Your task to perform on an android device: turn on the 12-hour format for clock Image 0: 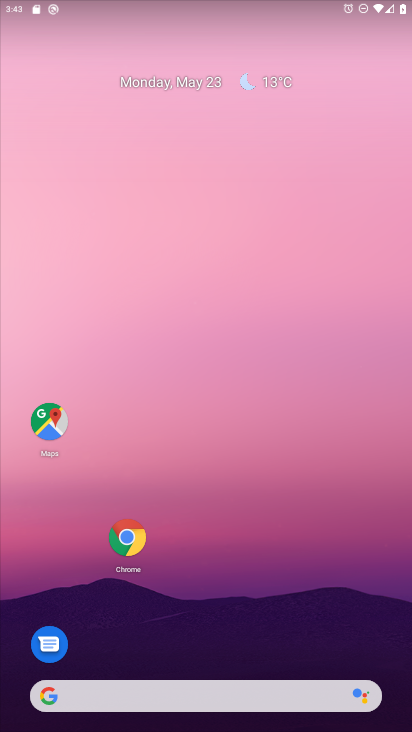
Step 0: drag from (215, 573) to (148, 2)
Your task to perform on an android device: turn on the 12-hour format for clock Image 1: 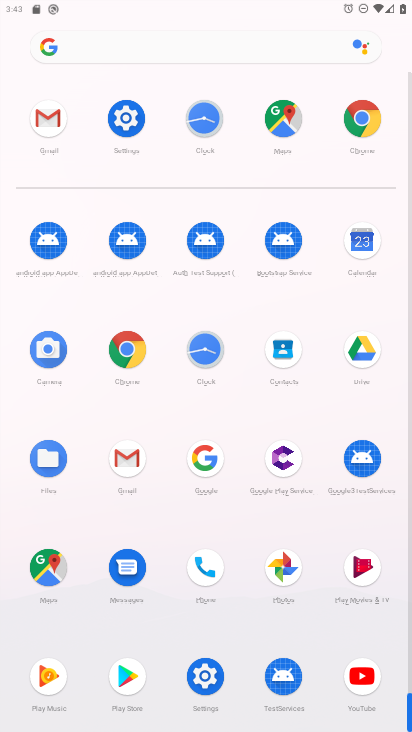
Step 1: click (204, 115)
Your task to perform on an android device: turn on the 12-hour format for clock Image 2: 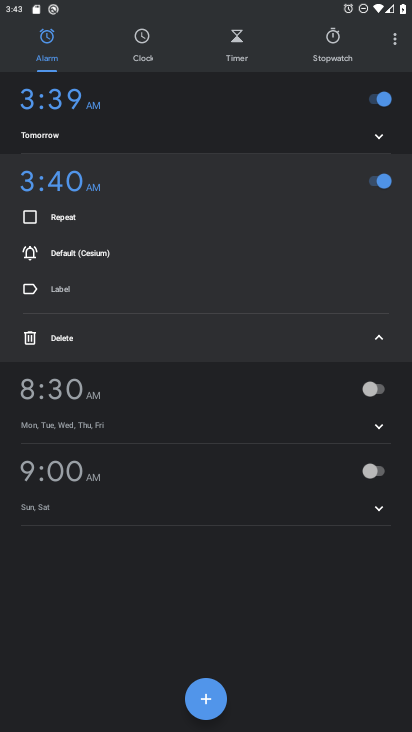
Step 2: click (395, 42)
Your task to perform on an android device: turn on the 12-hour format for clock Image 3: 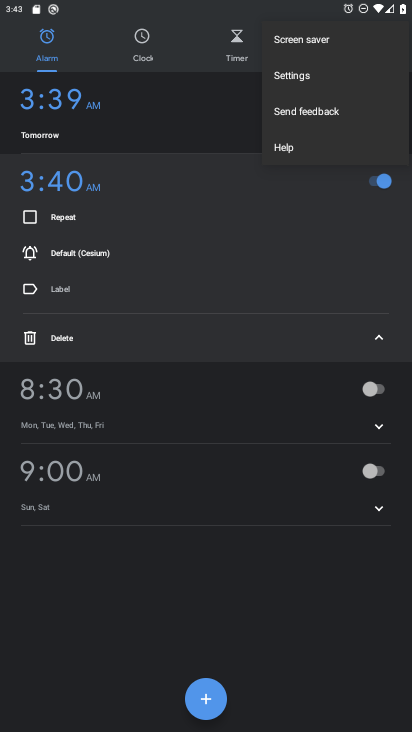
Step 3: click (312, 85)
Your task to perform on an android device: turn on the 12-hour format for clock Image 4: 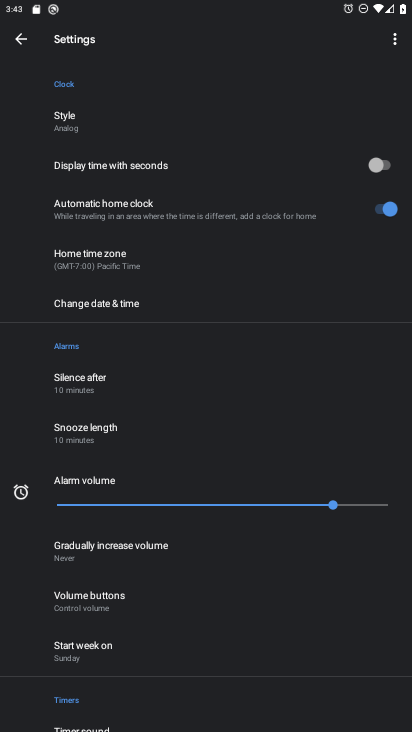
Step 4: drag from (219, 685) to (280, 288)
Your task to perform on an android device: turn on the 12-hour format for clock Image 5: 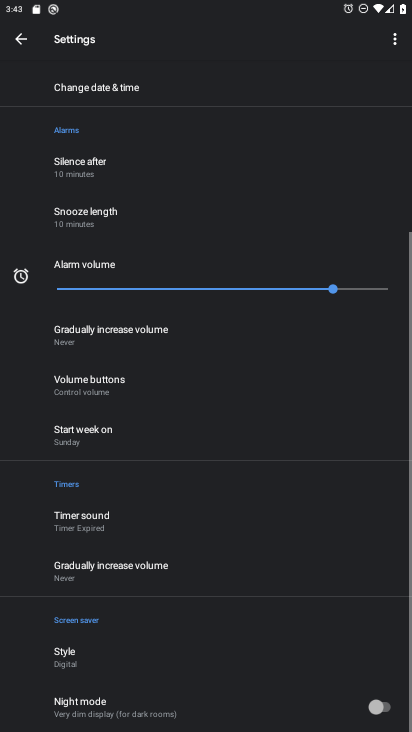
Step 5: drag from (274, 299) to (173, 675)
Your task to perform on an android device: turn on the 12-hour format for clock Image 6: 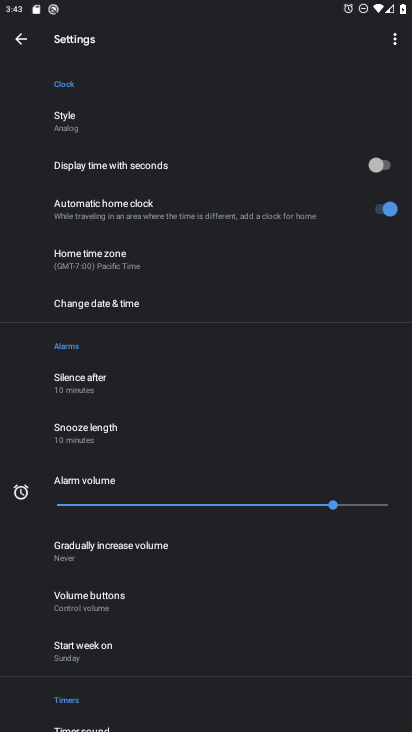
Step 6: click (127, 290)
Your task to perform on an android device: turn on the 12-hour format for clock Image 7: 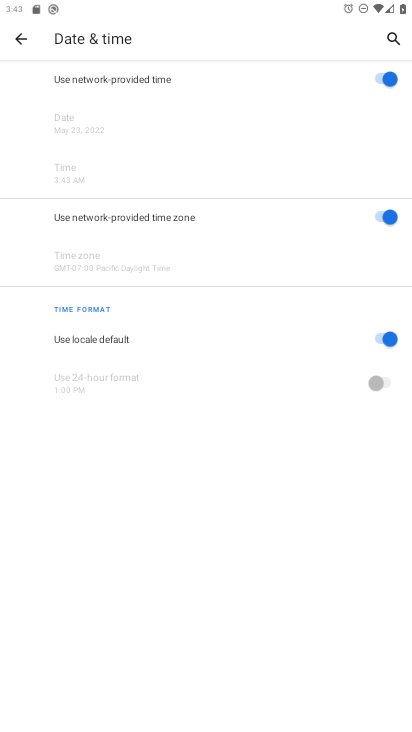
Step 7: task complete